Your task to perform on an android device: turn pop-ups on in chrome Image 0: 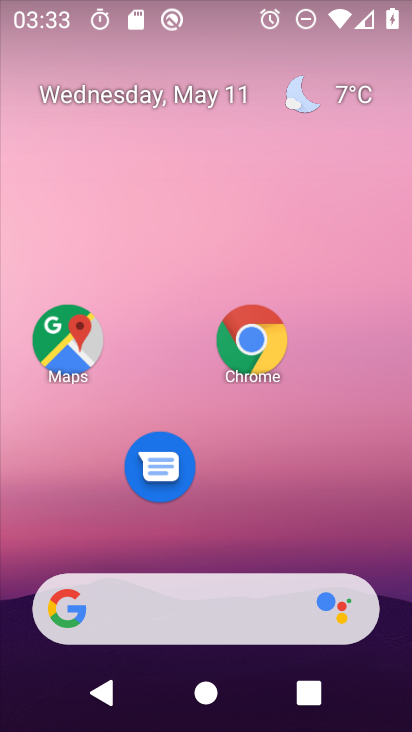
Step 0: click (250, 343)
Your task to perform on an android device: turn pop-ups on in chrome Image 1: 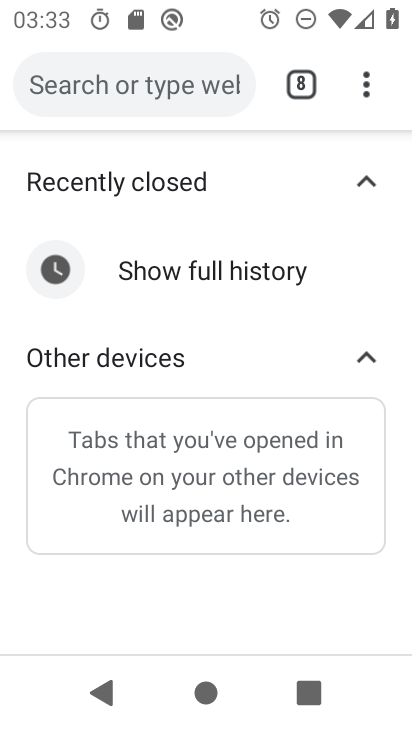
Step 1: drag from (361, 88) to (221, 523)
Your task to perform on an android device: turn pop-ups on in chrome Image 2: 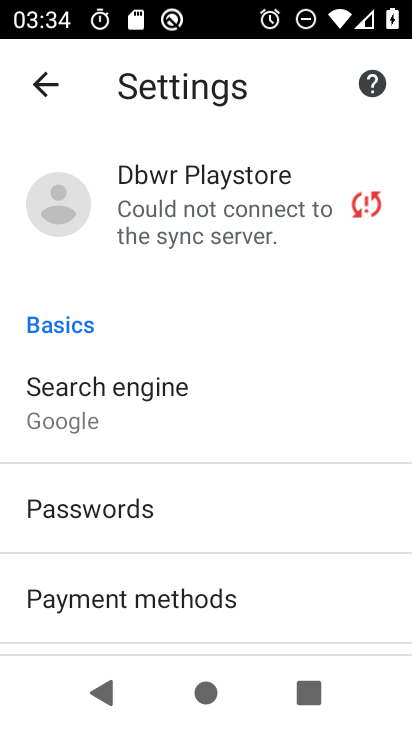
Step 2: drag from (203, 560) to (333, 246)
Your task to perform on an android device: turn pop-ups on in chrome Image 3: 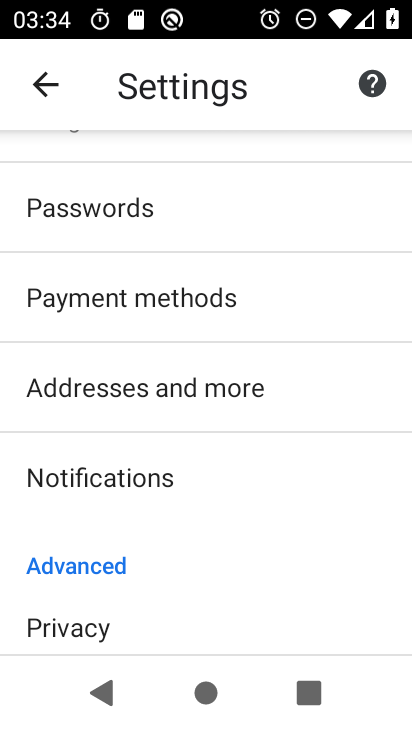
Step 3: drag from (129, 606) to (386, 156)
Your task to perform on an android device: turn pop-ups on in chrome Image 4: 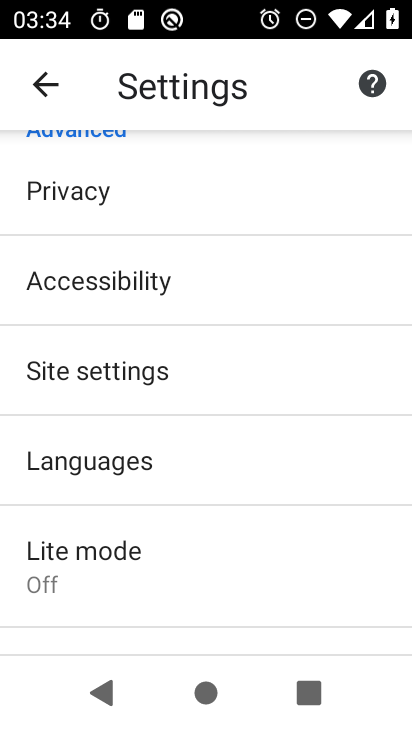
Step 4: click (87, 383)
Your task to perform on an android device: turn pop-ups on in chrome Image 5: 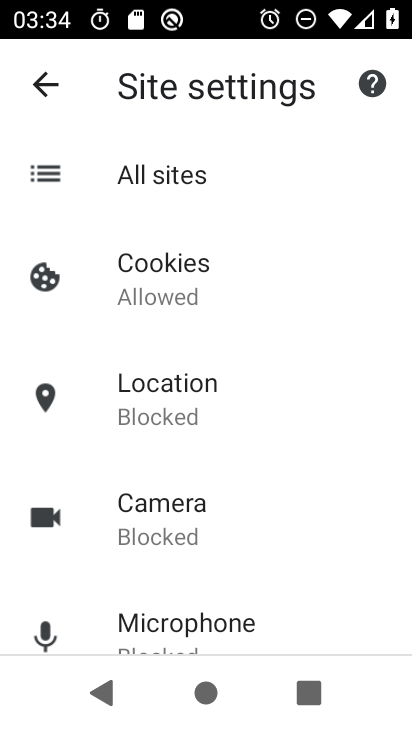
Step 5: drag from (189, 598) to (382, 159)
Your task to perform on an android device: turn pop-ups on in chrome Image 6: 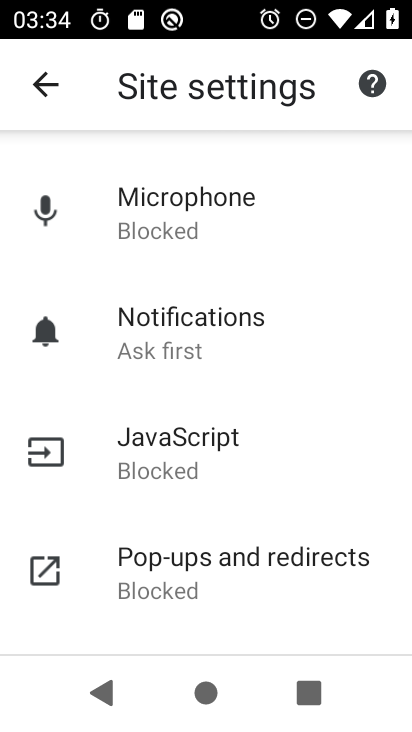
Step 6: click (192, 576)
Your task to perform on an android device: turn pop-ups on in chrome Image 7: 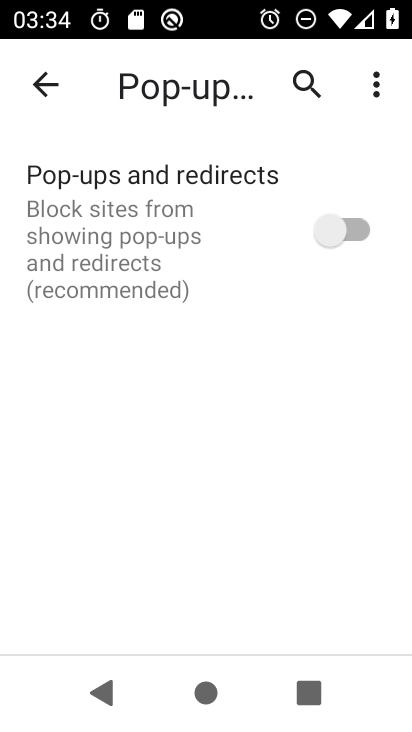
Step 7: click (348, 228)
Your task to perform on an android device: turn pop-ups on in chrome Image 8: 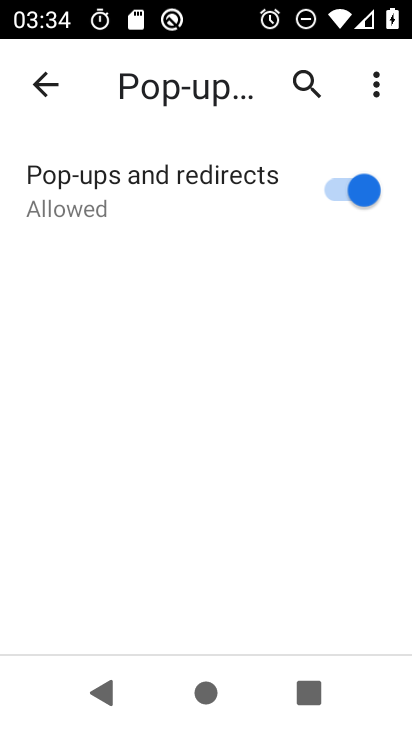
Step 8: task complete